Your task to perform on an android device: check data usage Image 0: 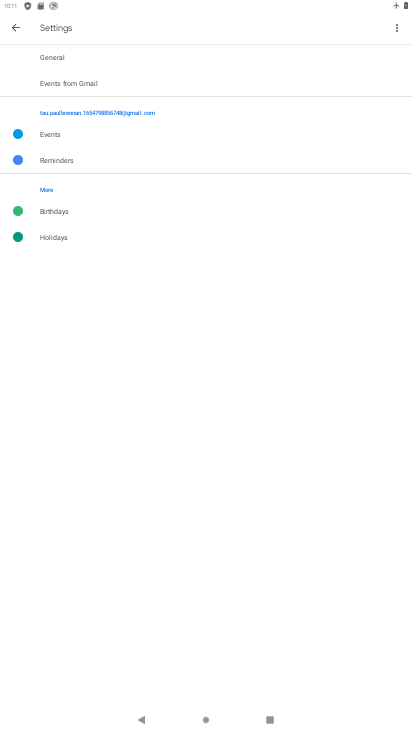
Step 0: press back button
Your task to perform on an android device: check data usage Image 1: 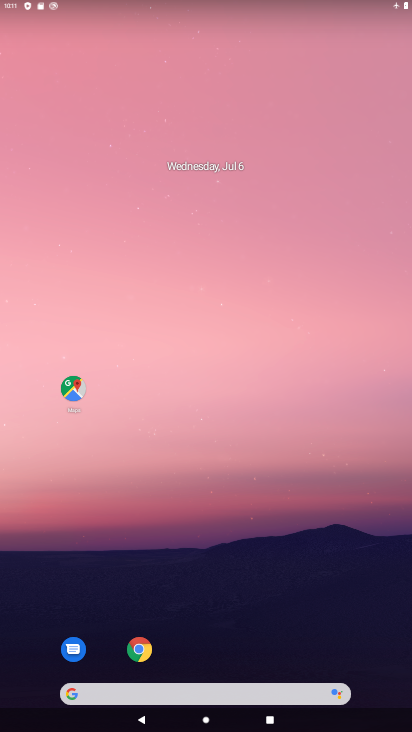
Step 1: drag from (382, 667) to (362, 166)
Your task to perform on an android device: check data usage Image 2: 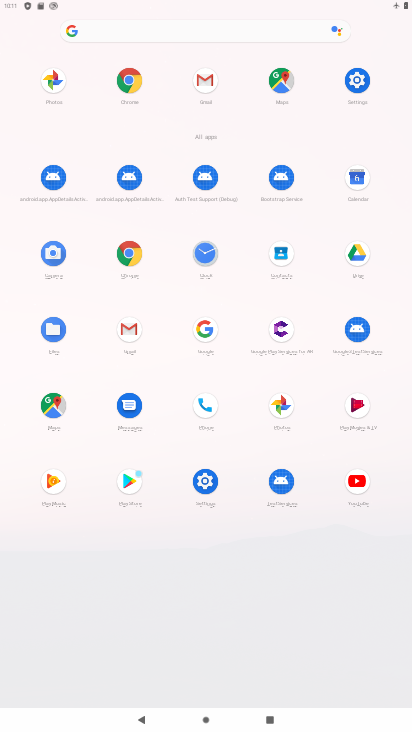
Step 2: click (354, 90)
Your task to perform on an android device: check data usage Image 3: 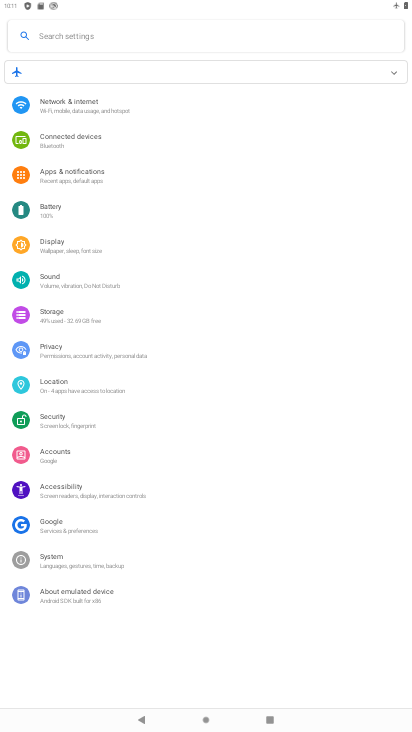
Step 3: click (80, 112)
Your task to perform on an android device: check data usage Image 4: 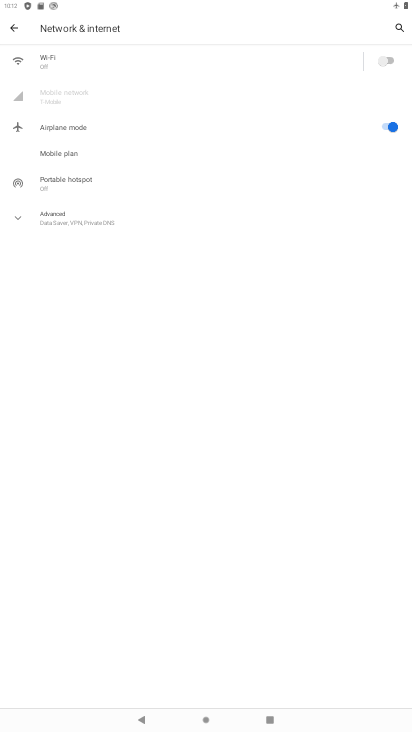
Step 4: task complete